Your task to perform on an android device: toggle priority inbox in the gmail app Image 0: 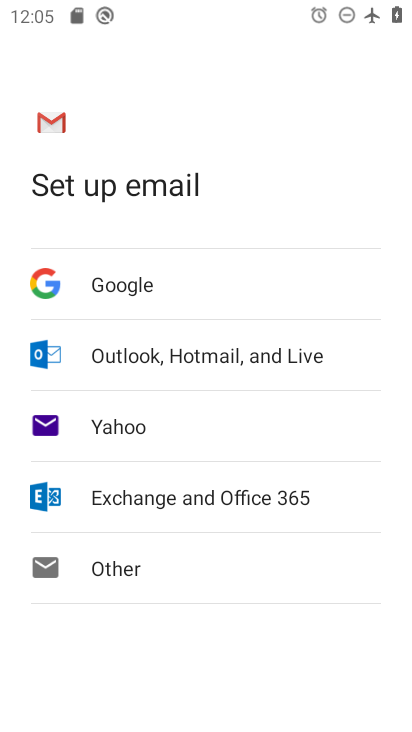
Step 0: press home button
Your task to perform on an android device: toggle priority inbox in the gmail app Image 1: 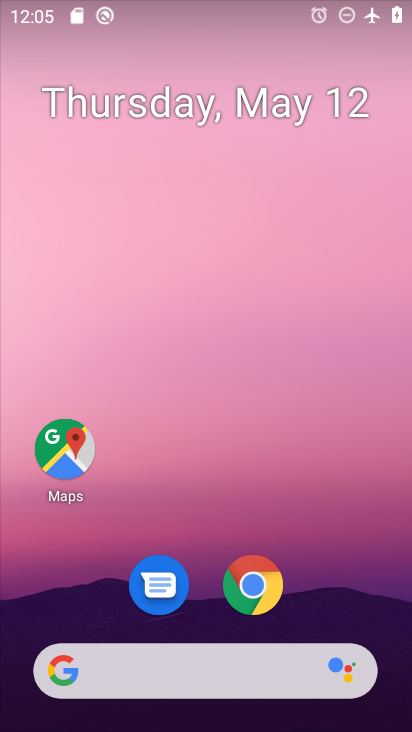
Step 1: drag from (191, 489) to (204, 28)
Your task to perform on an android device: toggle priority inbox in the gmail app Image 2: 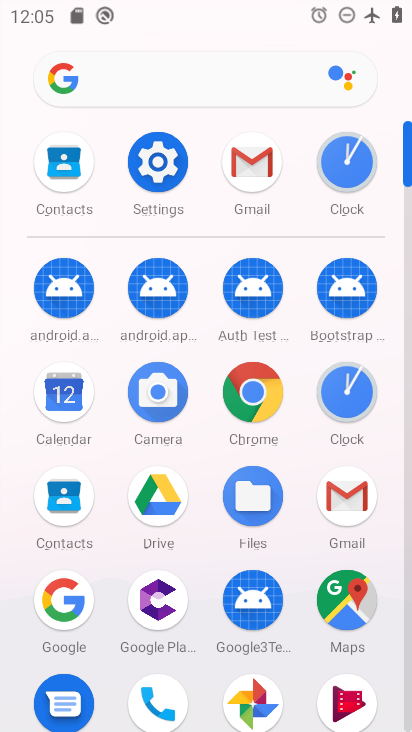
Step 2: click (239, 146)
Your task to perform on an android device: toggle priority inbox in the gmail app Image 3: 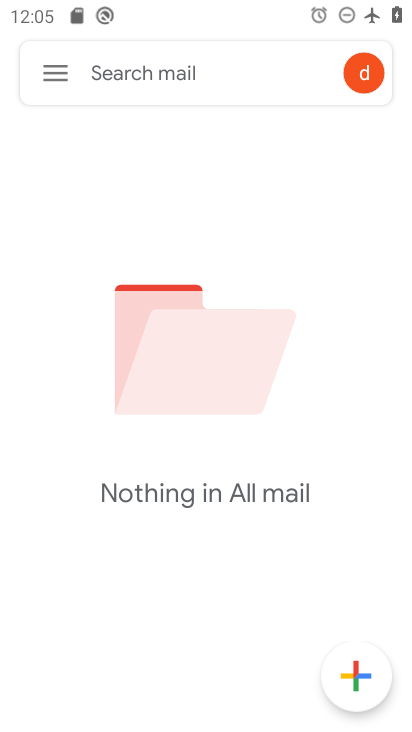
Step 3: click (58, 71)
Your task to perform on an android device: toggle priority inbox in the gmail app Image 4: 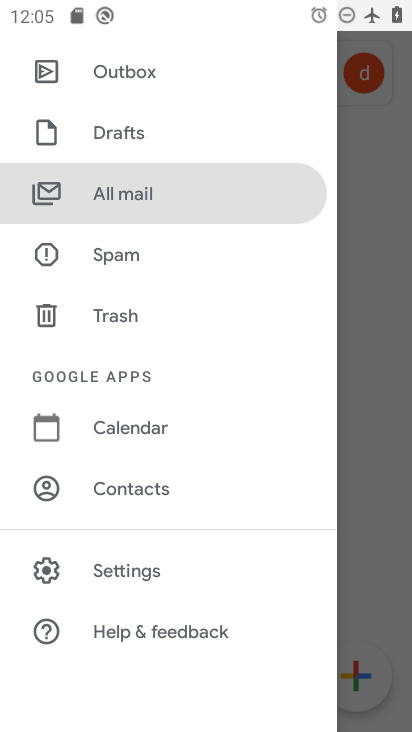
Step 4: click (139, 561)
Your task to perform on an android device: toggle priority inbox in the gmail app Image 5: 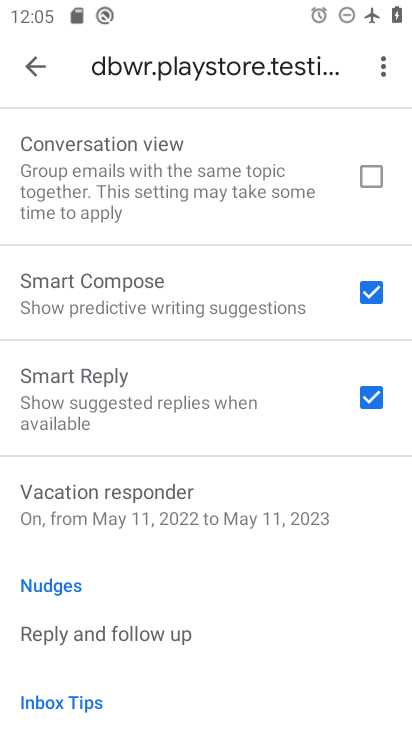
Step 5: drag from (278, 667) to (347, 323)
Your task to perform on an android device: toggle priority inbox in the gmail app Image 6: 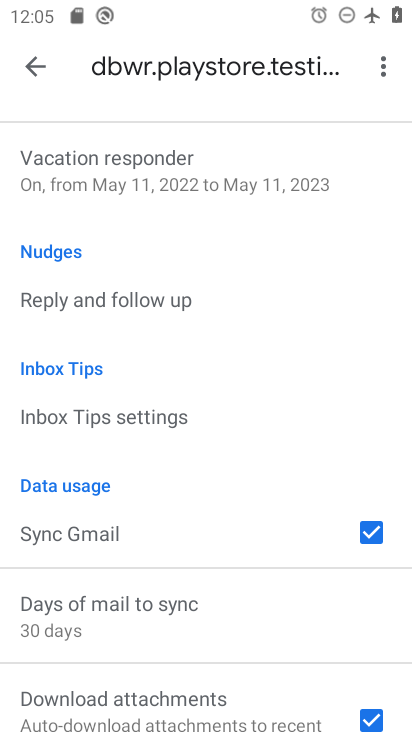
Step 6: click (104, 406)
Your task to perform on an android device: toggle priority inbox in the gmail app Image 7: 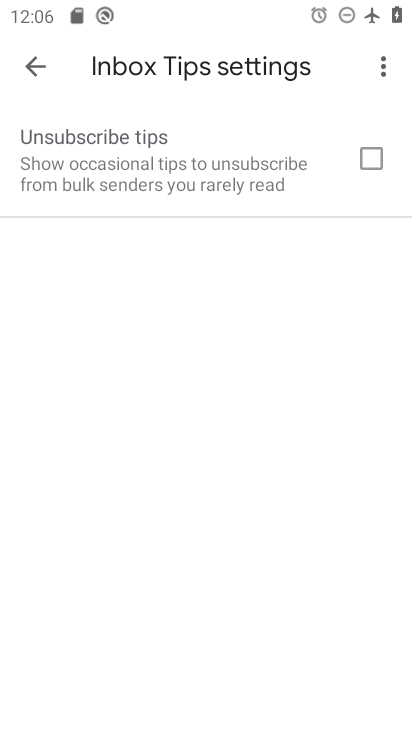
Step 7: click (29, 52)
Your task to perform on an android device: toggle priority inbox in the gmail app Image 8: 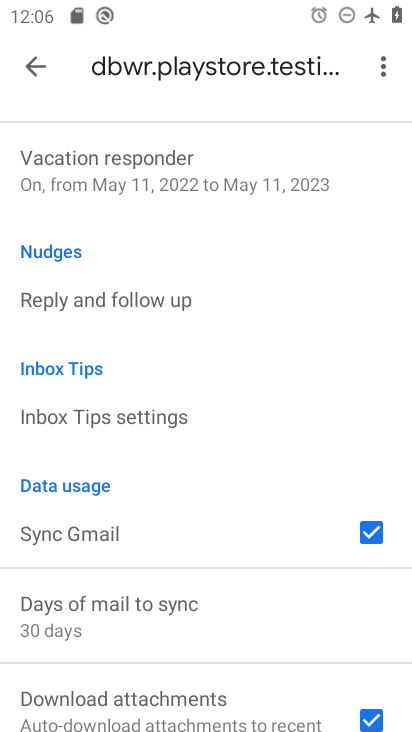
Step 8: drag from (236, 261) to (261, 509)
Your task to perform on an android device: toggle priority inbox in the gmail app Image 9: 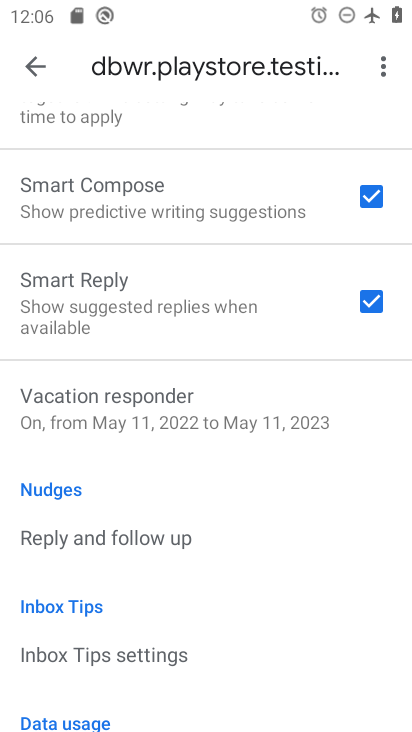
Step 9: drag from (201, 148) to (243, 527)
Your task to perform on an android device: toggle priority inbox in the gmail app Image 10: 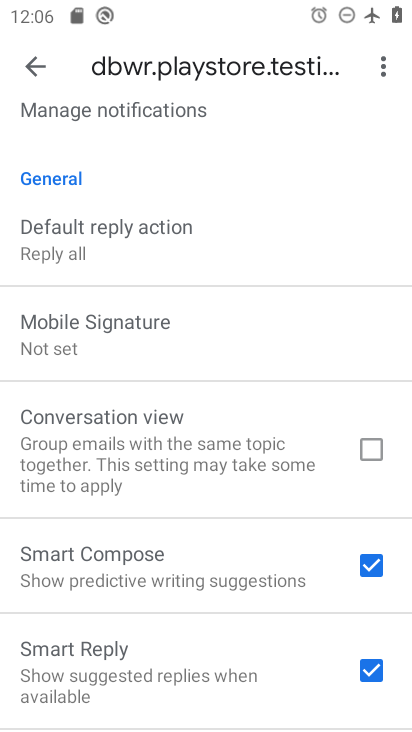
Step 10: drag from (210, 216) to (255, 530)
Your task to perform on an android device: toggle priority inbox in the gmail app Image 11: 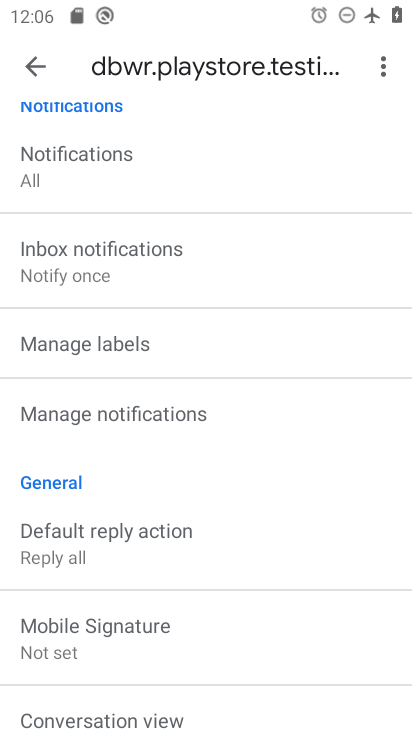
Step 11: drag from (213, 235) to (234, 559)
Your task to perform on an android device: toggle priority inbox in the gmail app Image 12: 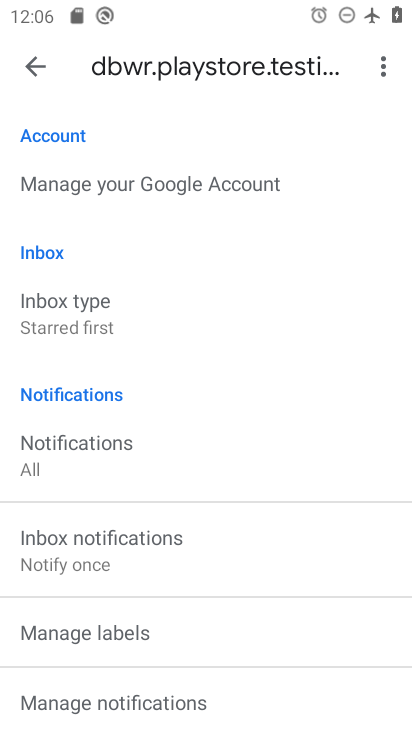
Step 12: click (85, 308)
Your task to perform on an android device: toggle priority inbox in the gmail app Image 13: 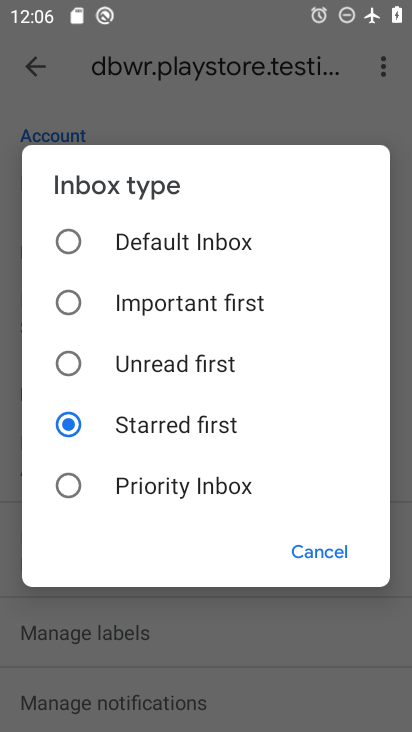
Step 13: click (72, 480)
Your task to perform on an android device: toggle priority inbox in the gmail app Image 14: 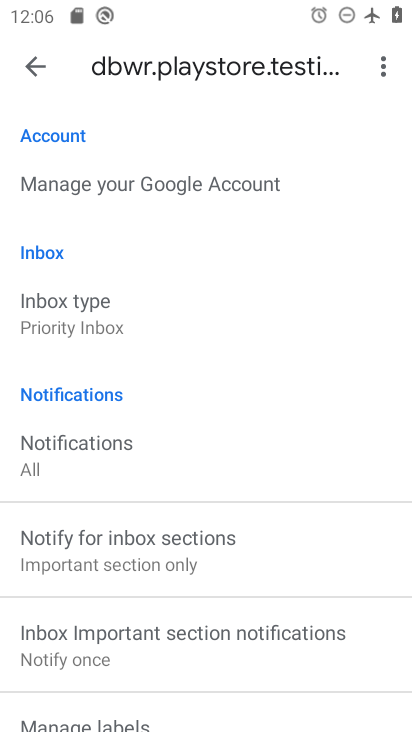
Step 14: task complete